Your task to perform on an android device: check battery use Image 0: 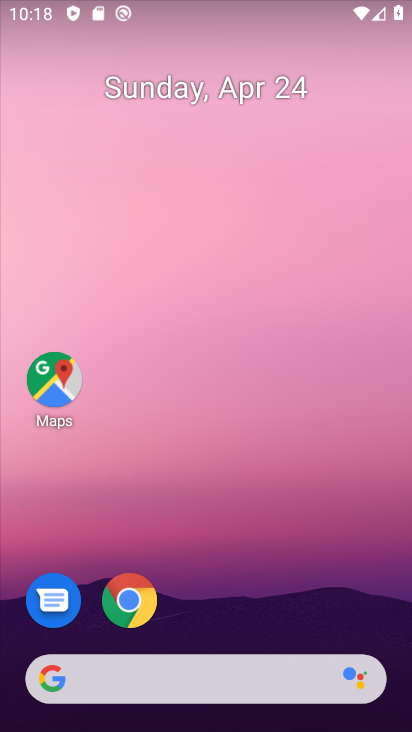
Step 0: drag from (236, 541) to (175, 191)
Your task to perform on an android device: check battery use Image 1: 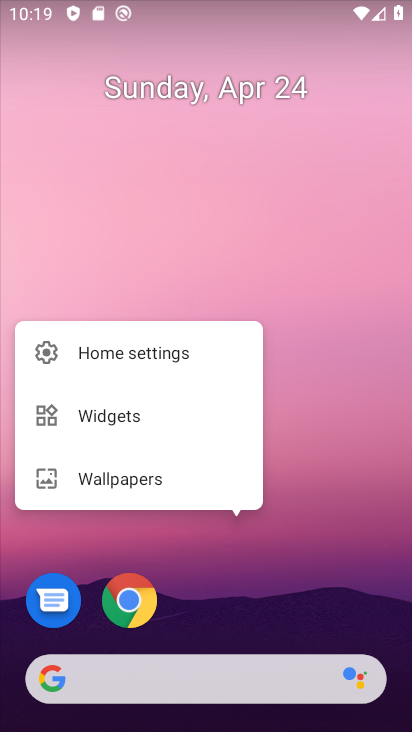
Step 1: click (294, 416)
Your task to perform on an android device: check battery use Image 2: 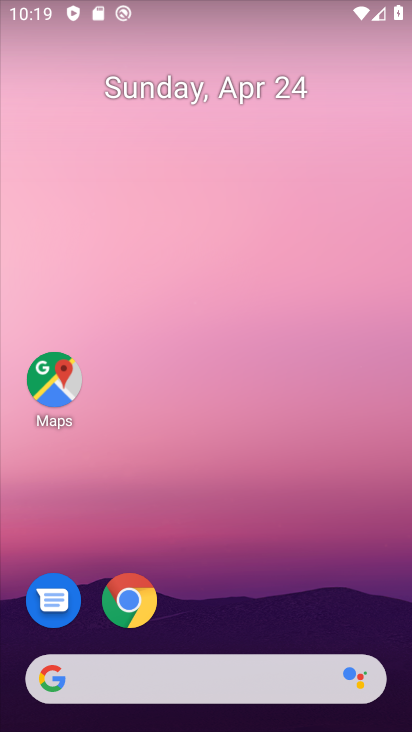
Step 2: drag from (236, 585) to (296, 1)
Your task to perform on an android device: check battery use Image 3: 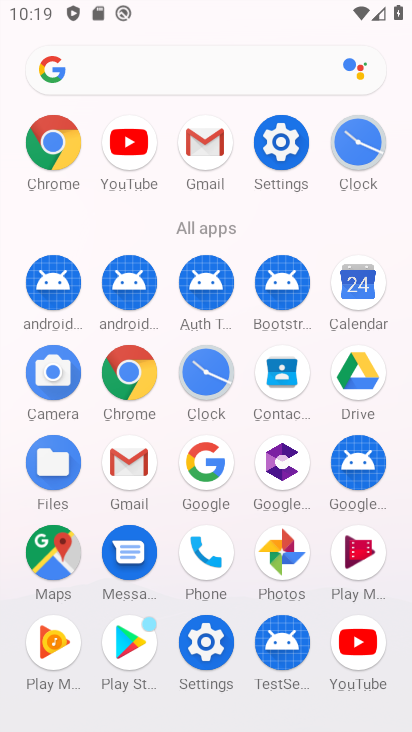
Step 3: click (278, 147)
Your task to perform on an android device: check battery use Image 4: 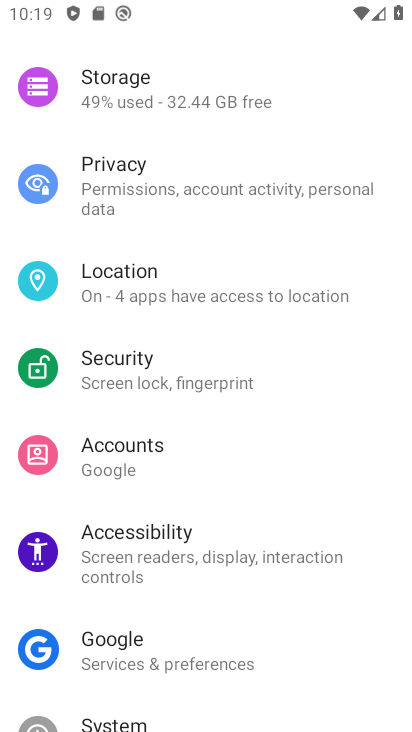
Step 4: drag from (217, 469) to (152, 142)
Your task to perform on an android device: check battery use Image 5: 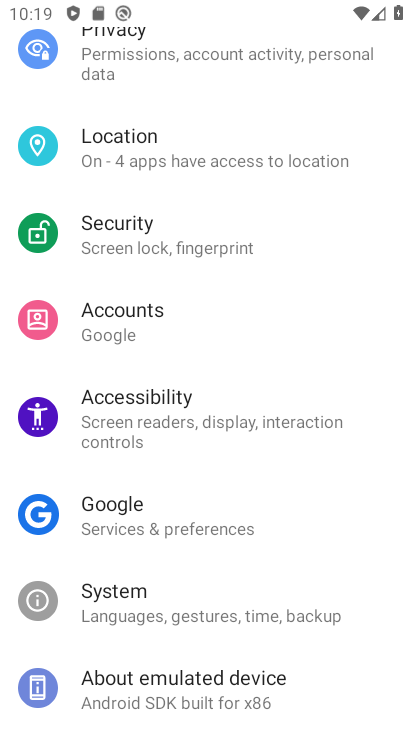
Step 5: drag from (244, 244) to (392, 728)
Your task to perform on an android device: check battery use Image 6: 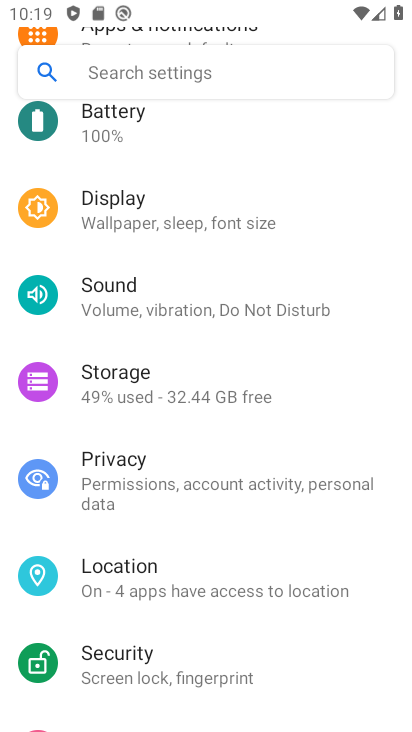
Step 6: drag from (248, 269) to (169, 730)
Your task to perform on an android device: check battery use Image 7: 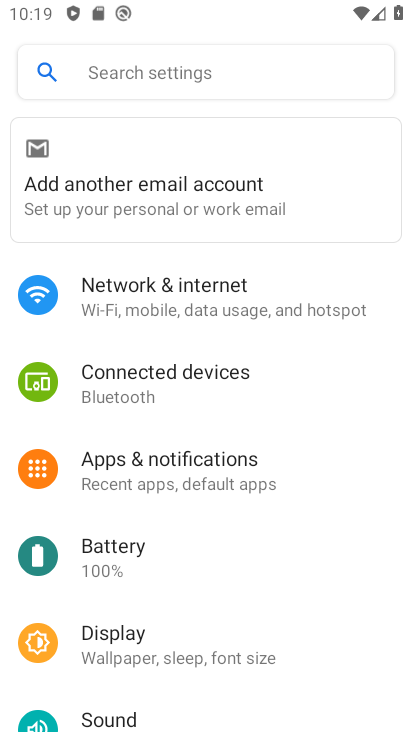
Step 7: click (103, 540)
Your task to perform on an android device: check battery use Image 8: 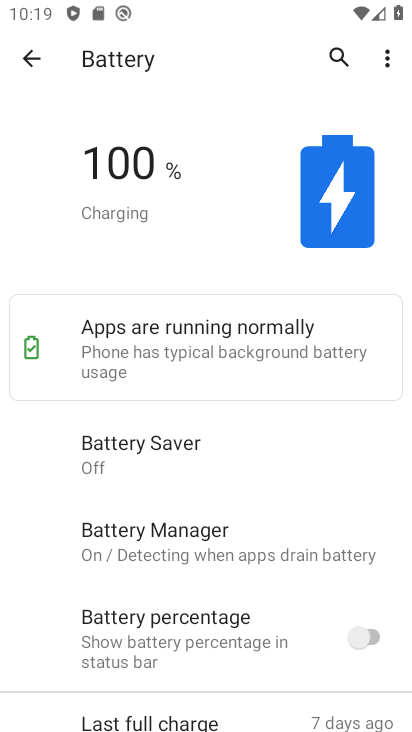
Step 8: task complete